Your task to perform on an android device: delete the emails in spam in the gmail app Image 0: 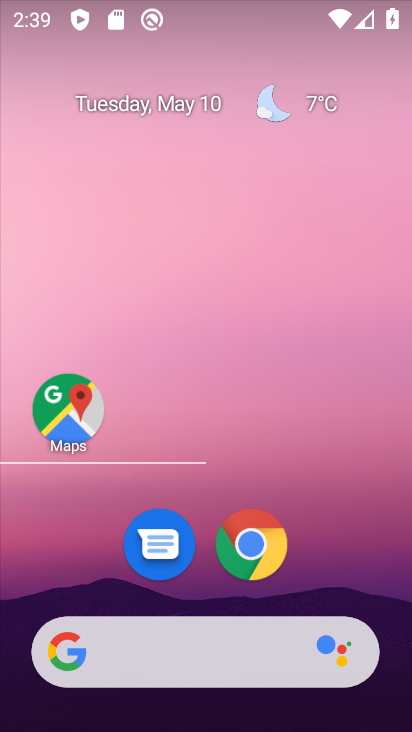
Step 0: drag from (359, 564) to (355, 155)
Your task to perform on an android device: delete the emails in spam in the gmail app Image 1: 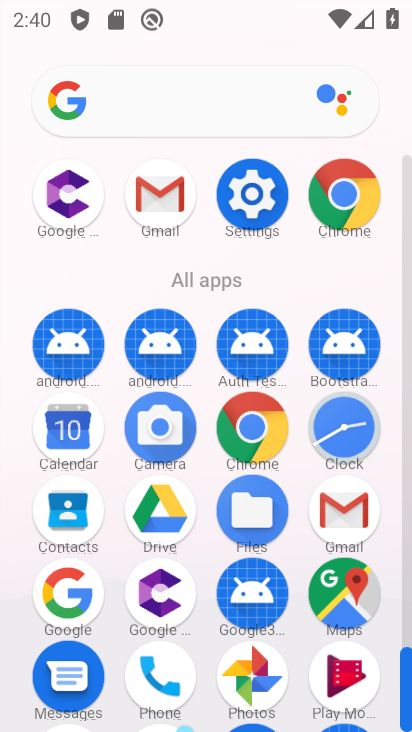
Step 1: click (331, 528)
Your task to perform on an android device: delete the emails in spam in the gmail app Image 2: 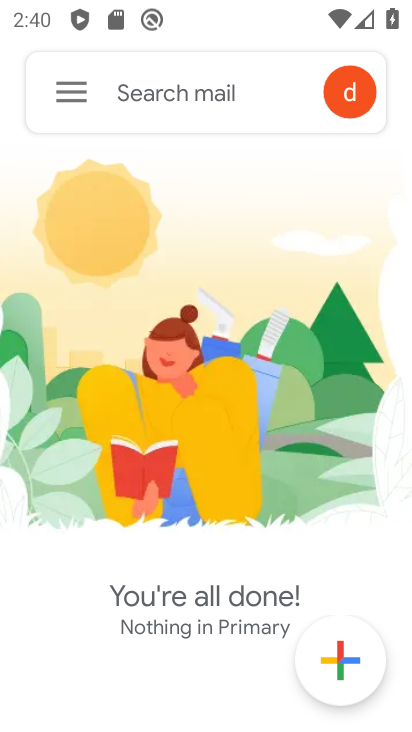
Step 2: click (62, 97)
Your task to perform on an android device: delete the emails in spam in the gmail app Image 3: 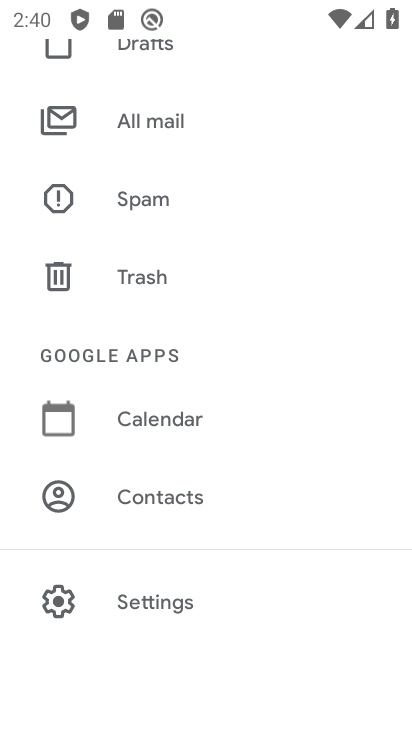
Step 3: click (166, 204)
Your task to perform on an android device: delete the emails in spam in the gmail app Image 4: 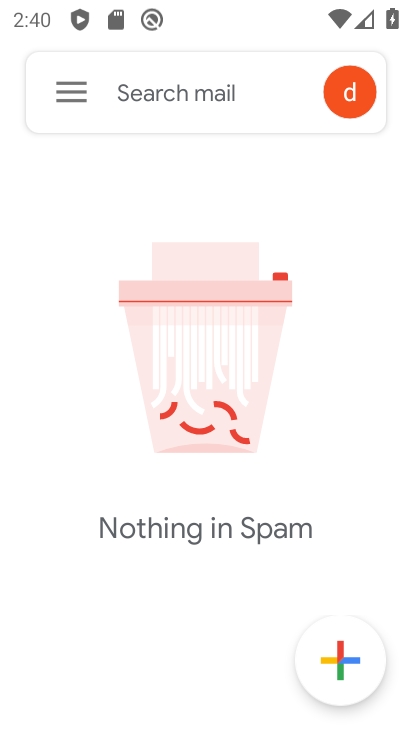
Step 4: task complete